Your task to perform on an android device: Do I have any events this weekend? Image 0: 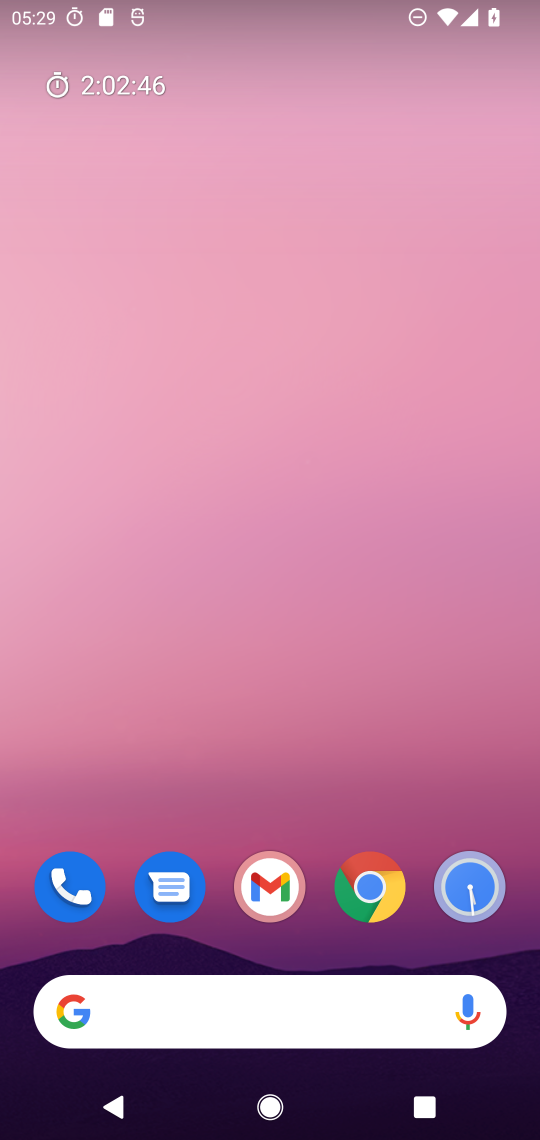
Step 0: press home button
Your task to perform on an android device: Do I have any events this weekend? Image 1: 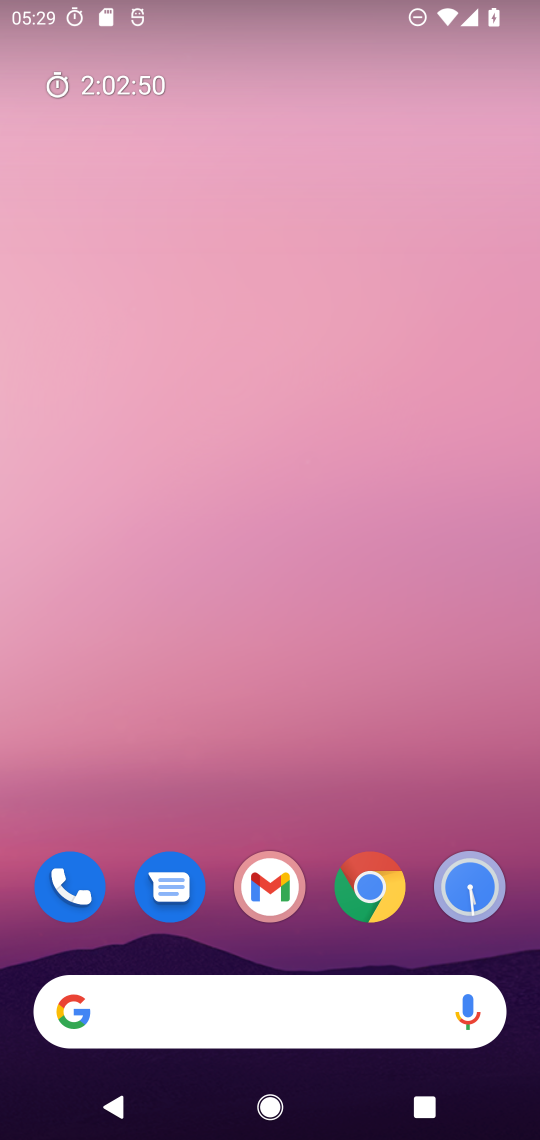
Step 1: drag from (323, 770) to (380, 271)
Your task to perform on an android device: Do I have any events this weekend? Image 2: 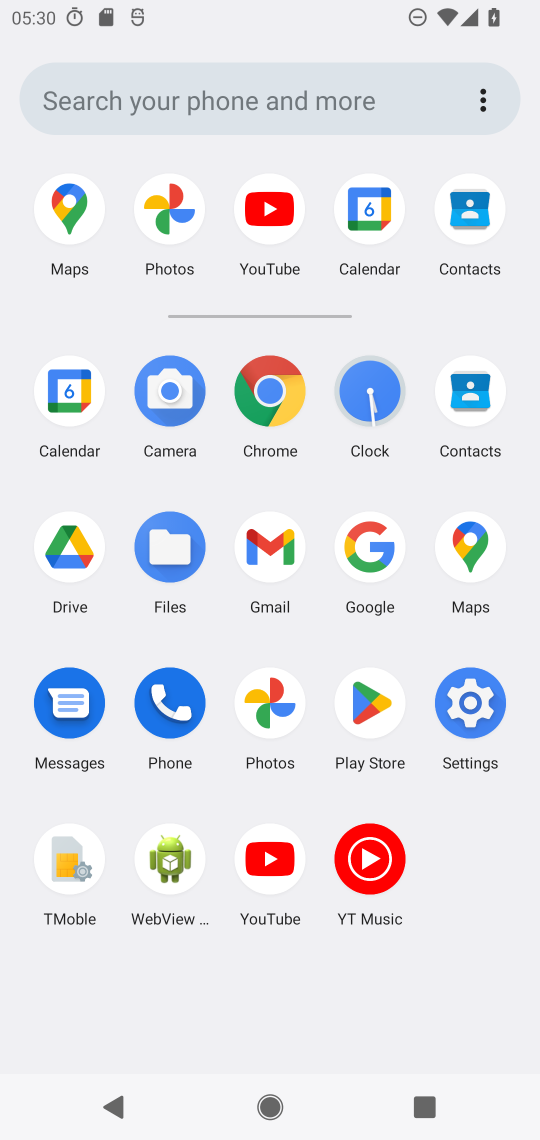
Step 2: click (72, 398)
Your task to perform on an android device: Do I have any events this weekend? Image 3: 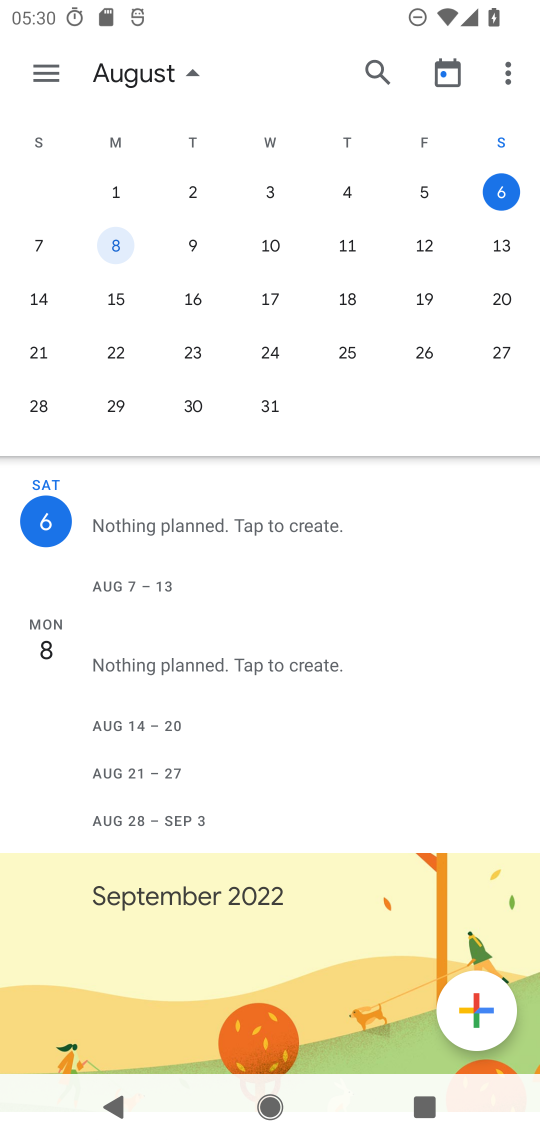
Step 3: task complete